Your task to perform on an android device: toggle notifications settings in the gmail app Image 0: 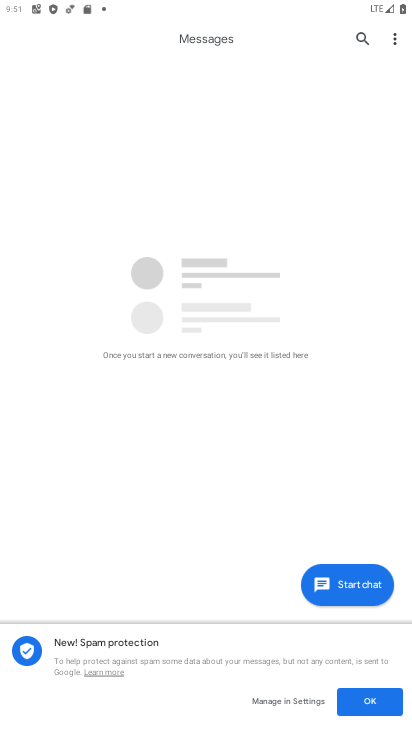
Step 0: press home button
Your task to perform on an android device: toggle notifications settings in the gmail app Image 1: 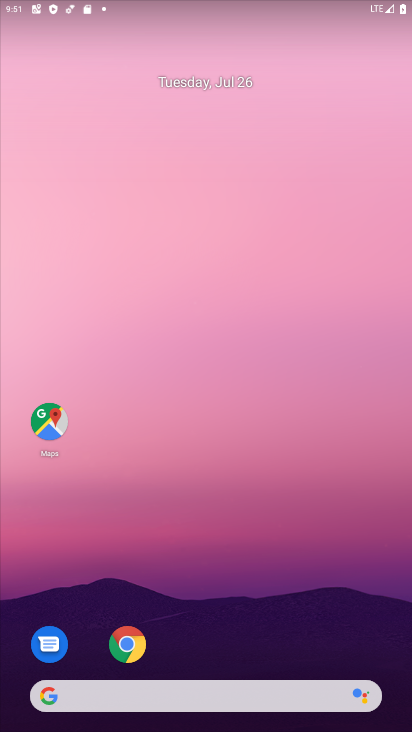
Step 1: drag from (280, 467) to (289, 1)
Your task to perform on an android device: toggle notifications settings in the gmail app Image 2: 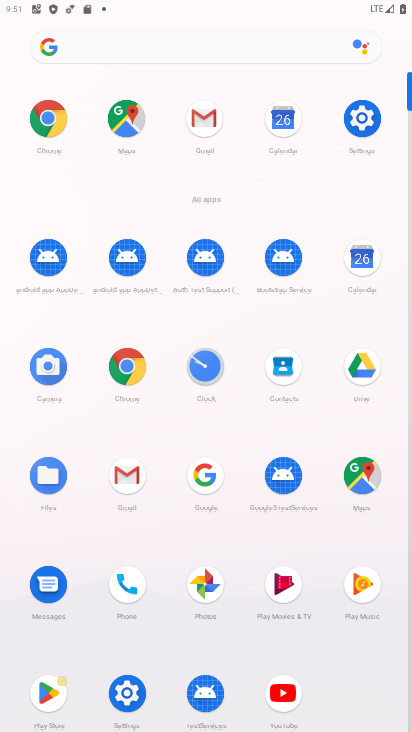
Step 2: click (207, 123)
Your task to perform on an android device: toggle notifications settings in the gmail app Image 3: 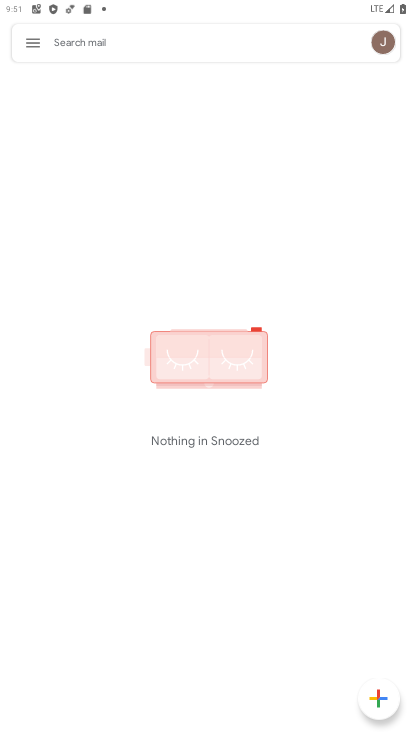
Step 3: click (32, 39)
Your task to perform on an android device: toggle notifications settings in the gmail app Image 4: 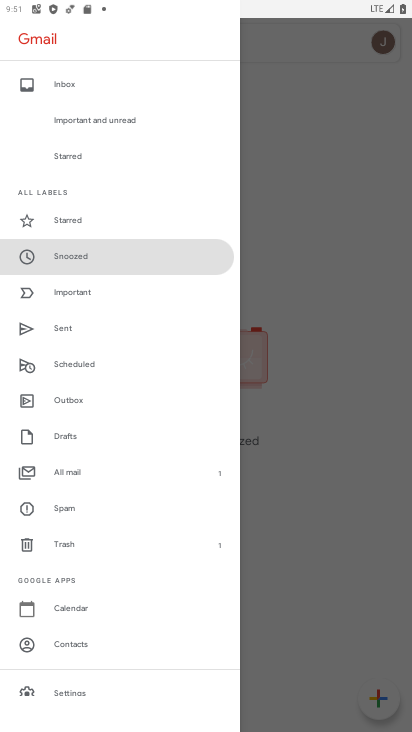
Step 4: drag from (133, 634) to (125, 286)
Your task to perform on an android device: toggle notifications settings in the gmail app Image 5: 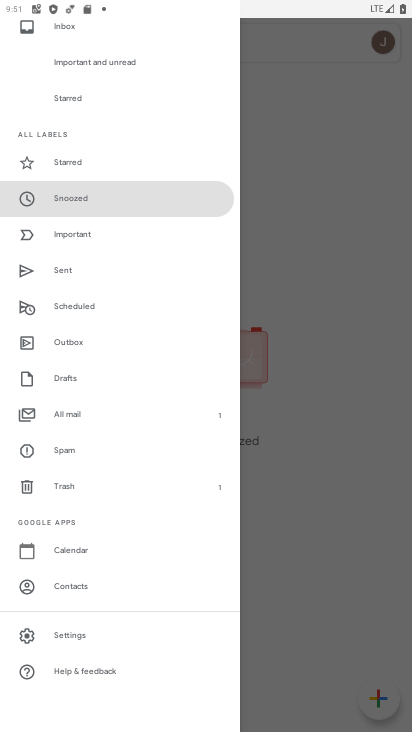
Step 5: click (80, 634)
Your task to perform on an android device: toggle notifications settings in the gmail app Image 6: 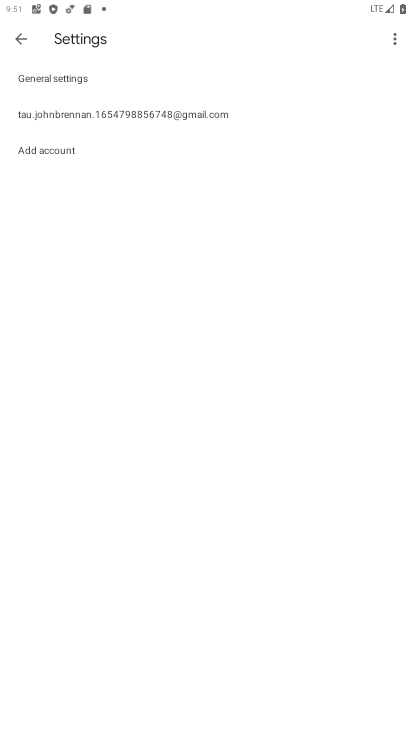
Step 6: click (59, 84)
Your task to perform on an android device: toggle notifications settings in the gmail app Image 7: 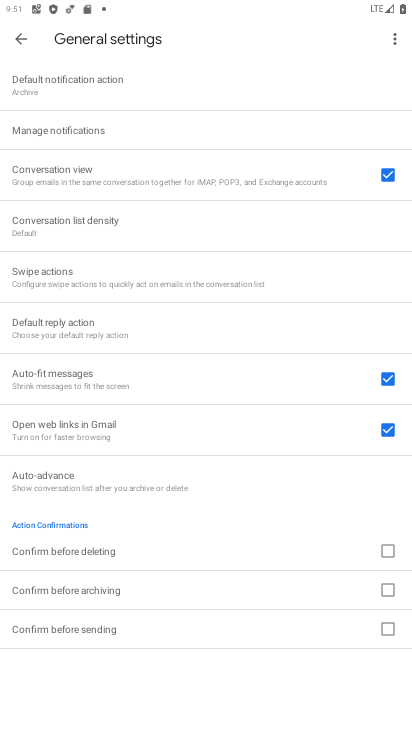
Step 7: click (57, 134)
Your task to perform on an android device: toggle notifications settings in the gmail app Image 8: 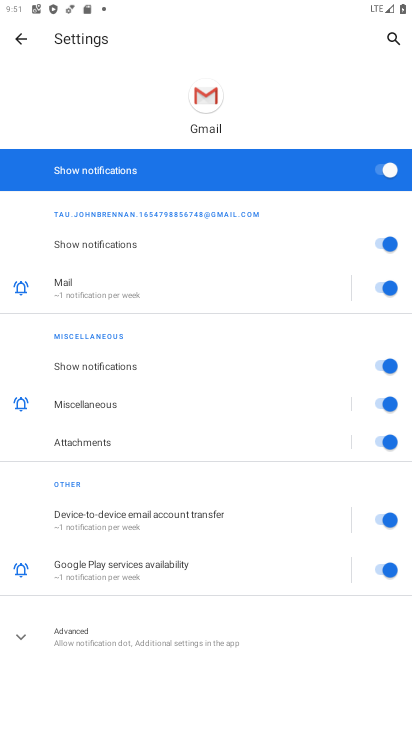
Step 8: click (403, 171)
Your task to perform on an android device: toggle notifications settings in the gmail app Image 9: 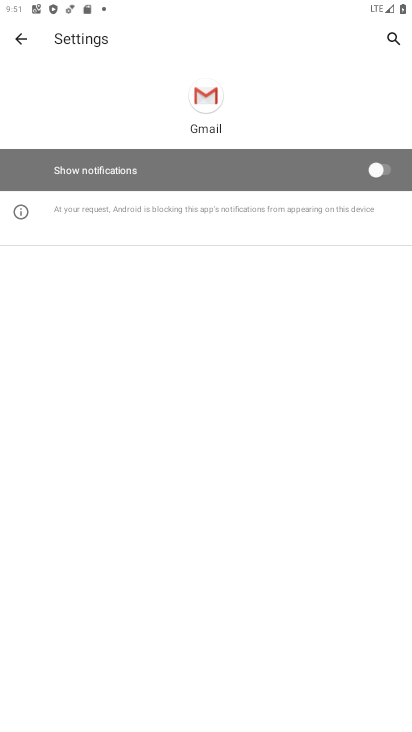
Step 9: task complete